Your task to perform on an android device: Open the calendar app, open the side menu, and click the "Day" option Image 0: 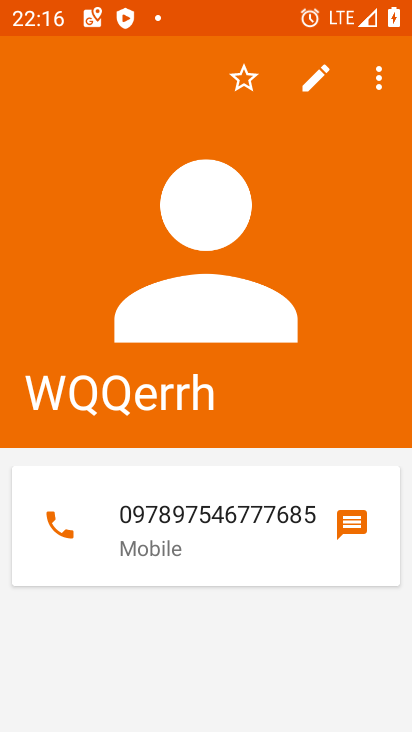
Step 0: press home button
Your task to perform on an android device: Open the calendar app, open the side menu, and click the "Day" option Image 1: 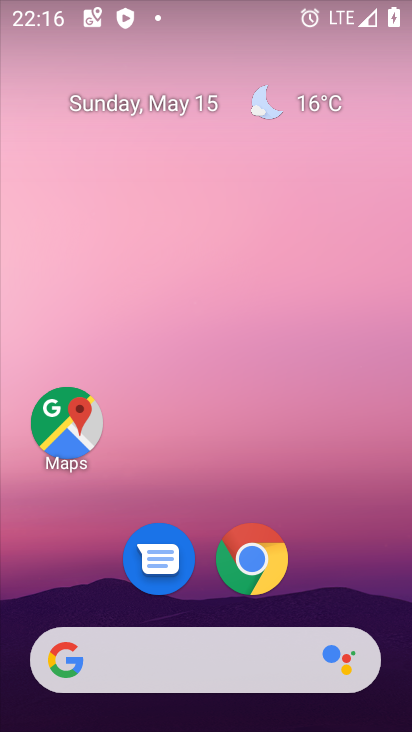
Step 1: drag from (264, 469) to (216, 41)
Your task to perform on an android device: Open the calendar app, open the side menu, and click the "Day" option Image 2: 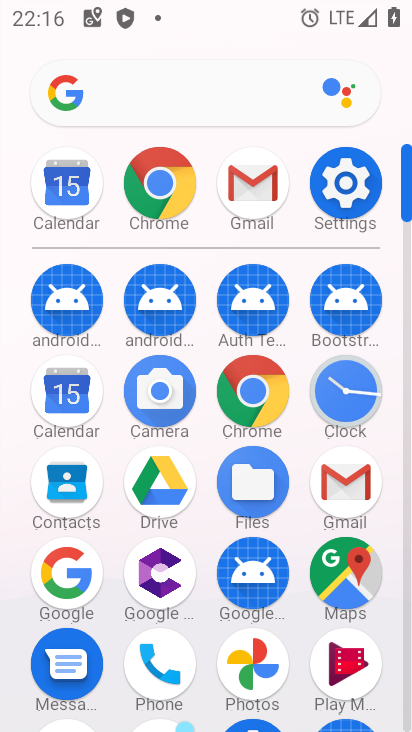
Step 2: click (64, 399)
Your task to perform on an android device: Open the calendar app, open the side menu, and click the "Day" option Image 3: 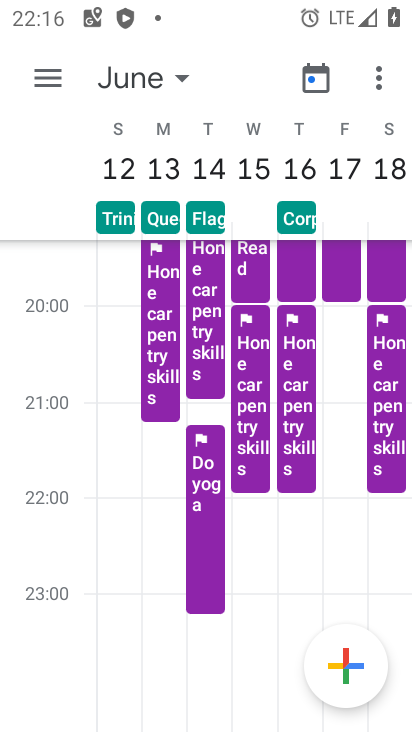
Step 3: click (42, 80)
Your task to perform on an android device: Open the calendar app, open the side menu, and click the "Day" option Image 4: 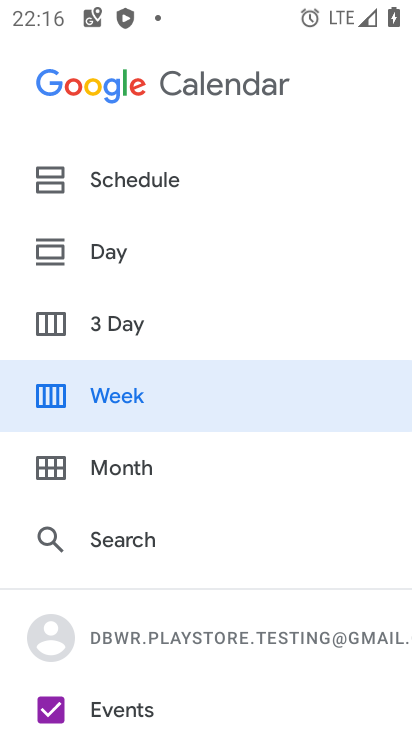
Step 4: click (101, 244)
Your task to perform on an android device: Open the calendar app, open the side menu, and click the "Day" option Image 5: 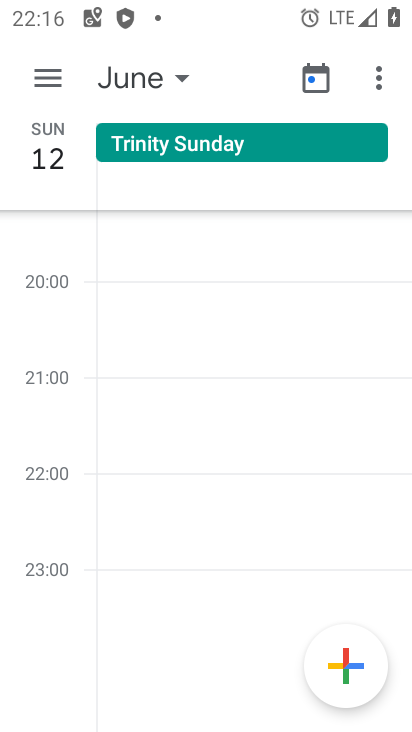
Step 5: task complete